Your task to perform on an android device: What's the news in Guyana? Image 0: 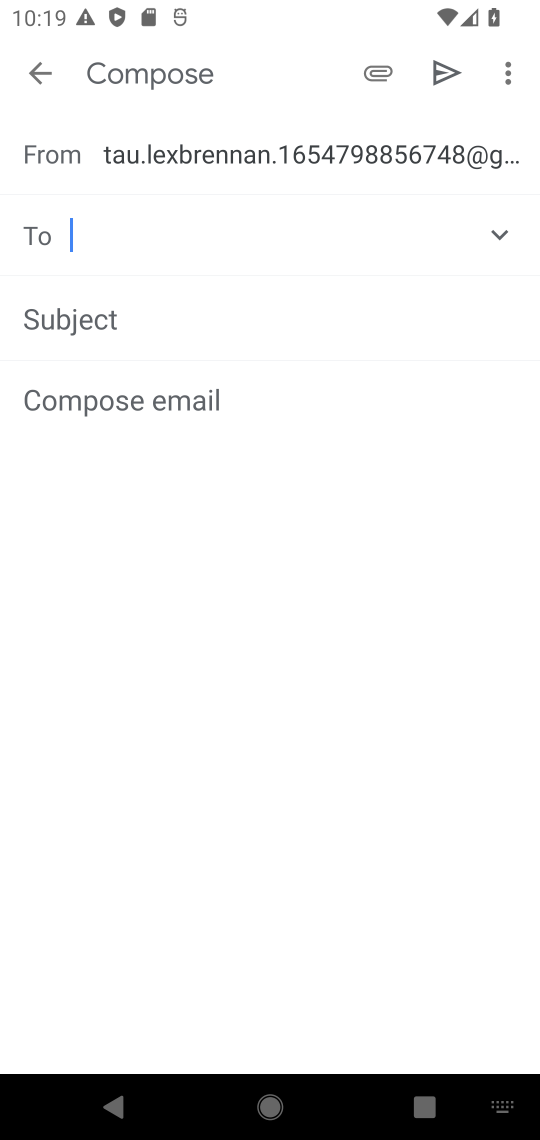
Step 0: press home button
Your task to perform on an android device: What's the news in Guyana? Image 1: 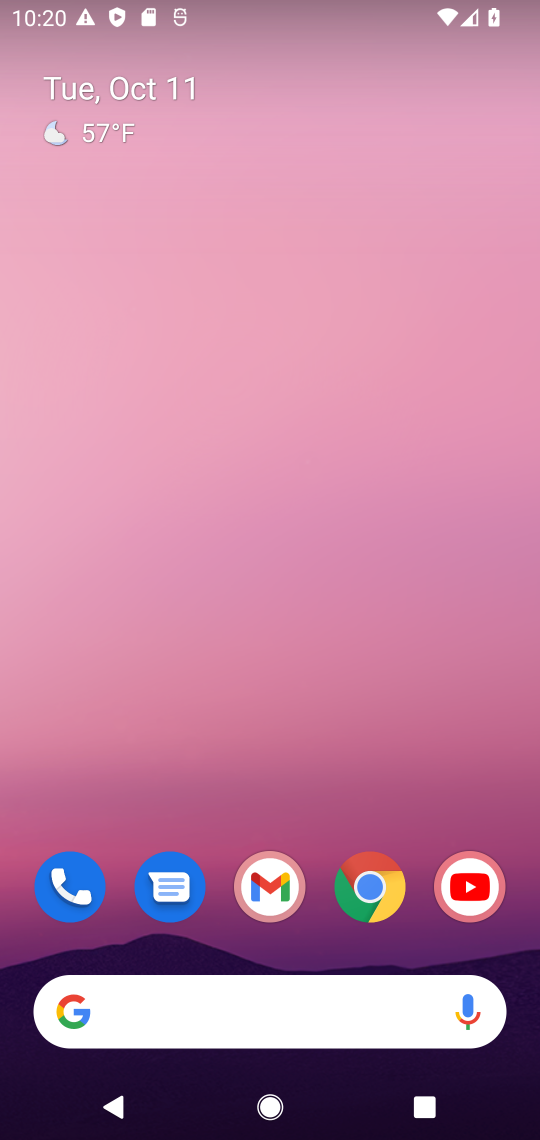
Step 1: click (295, 1009)
Your task to perform on an android device: What's the news in Guyana? Image 2: 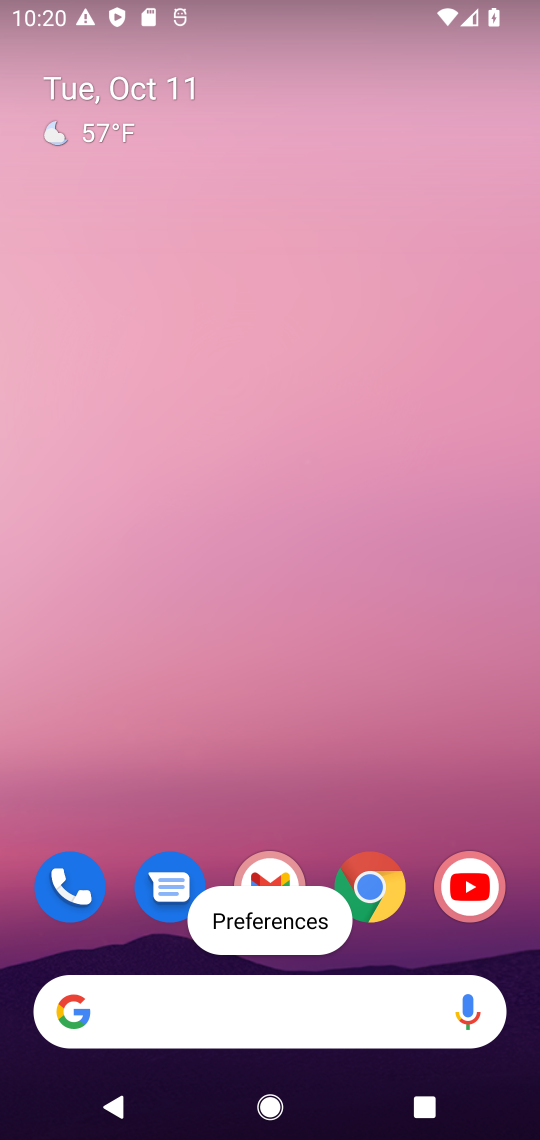
Step 2: click (113, 1001)
Your task to perform on an android device: What's the news in Guyana? Image 3: 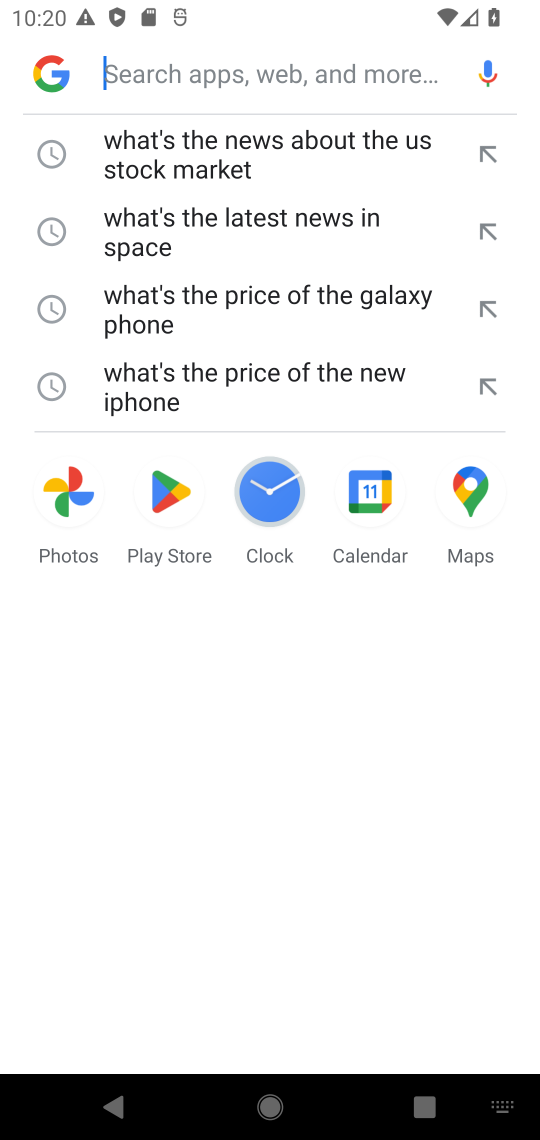
Step 3: type "What's the news in Guyana"
Your task to perform on an android device: What's the news in Guyana? Image 4: 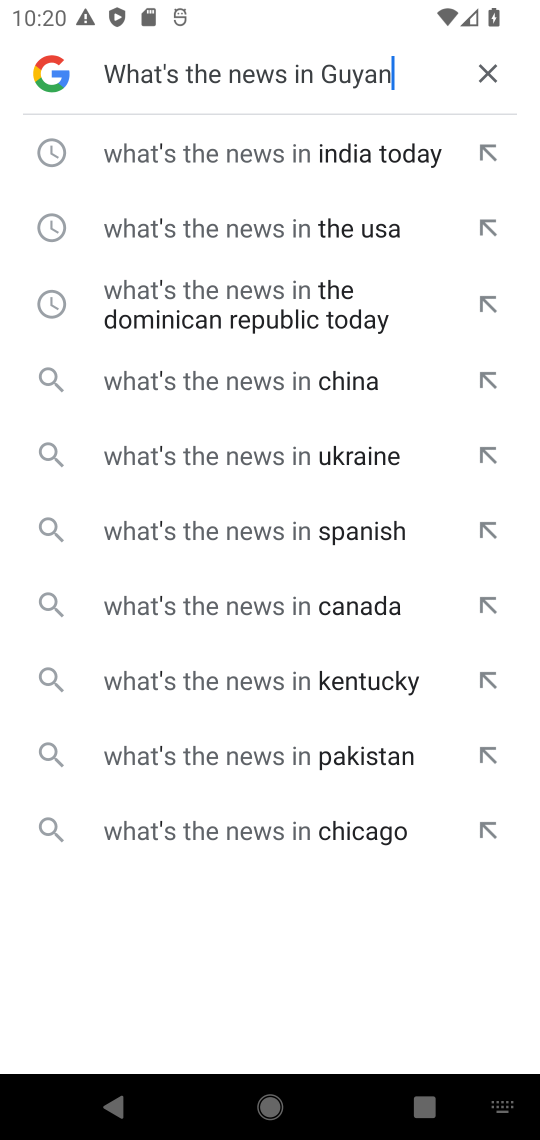
Step 4: press enter
Your task to perform on an android device: What's the news in Guyana? Image 5: 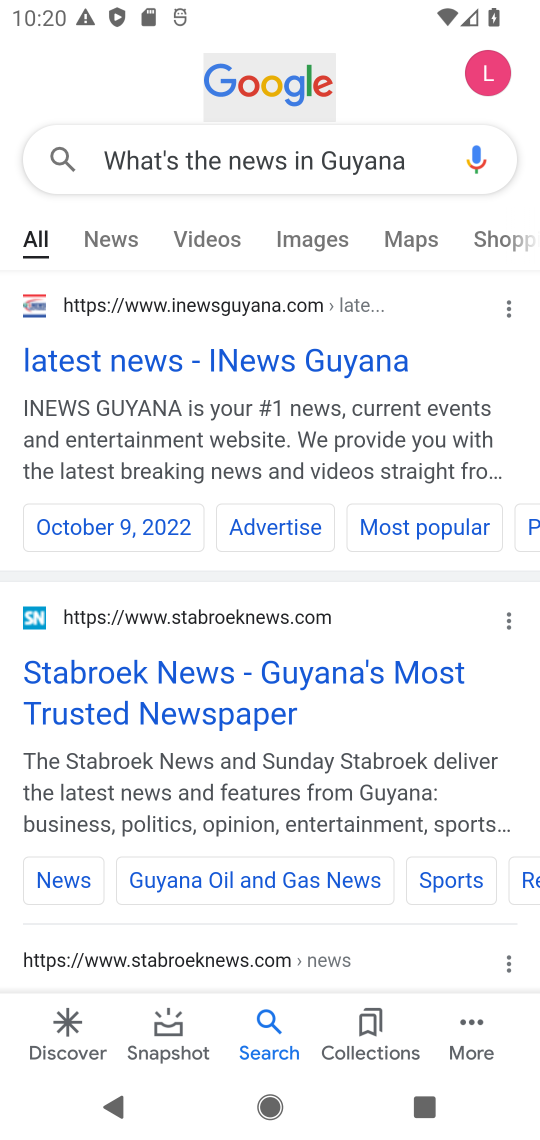
Step 5: click (340, 363)
Your task to perform on an android device: What's the news in Guyana? Image 6: 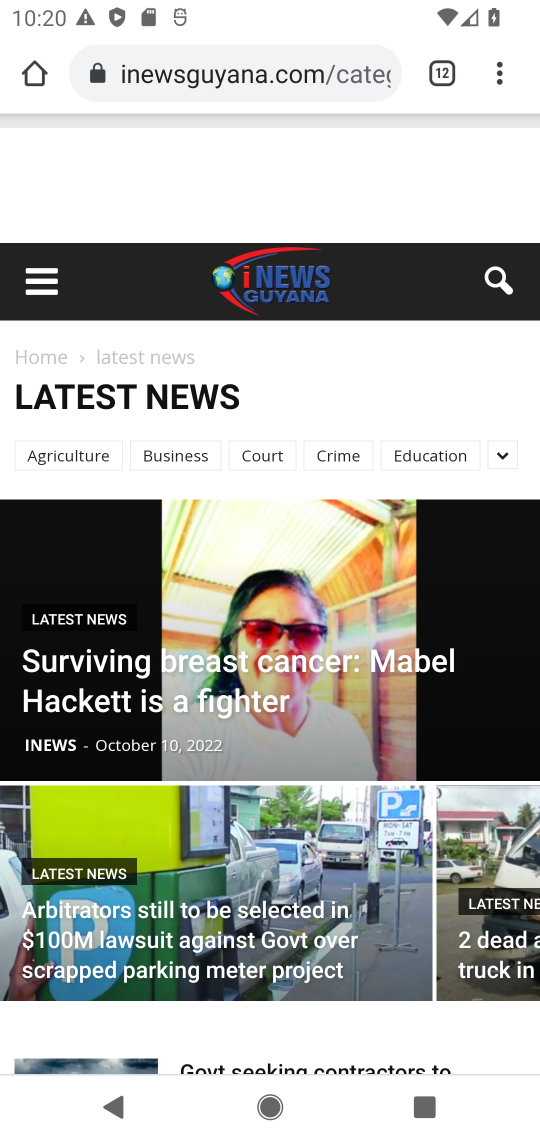
Step 6: task complete